Your task to perform on an android device: turn on priority inbox in the gmail app Image 0: 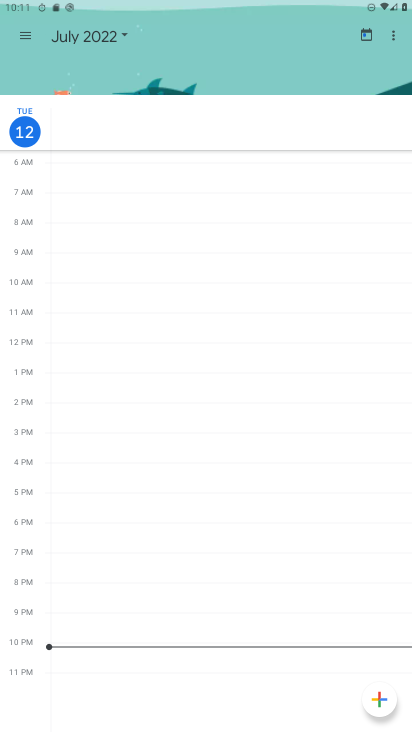
Step 0: press home button
Your task to perform on an android device: turn on priority inbox in the gmail app Image 1: 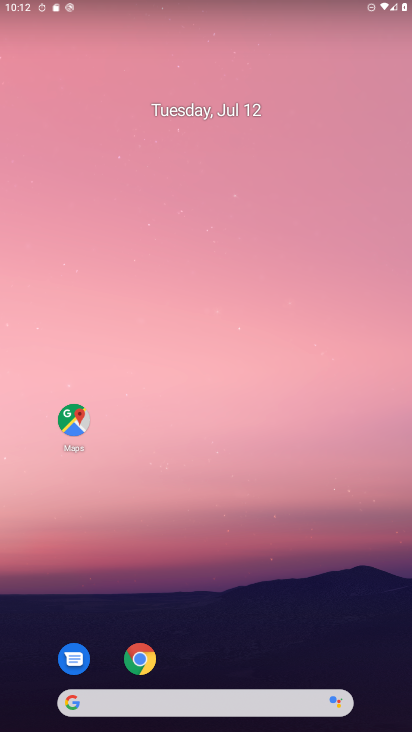
Step 1: click (248, 730)
Your task to perform on an android device: turn on priority inbox in the gmail app Image 2: 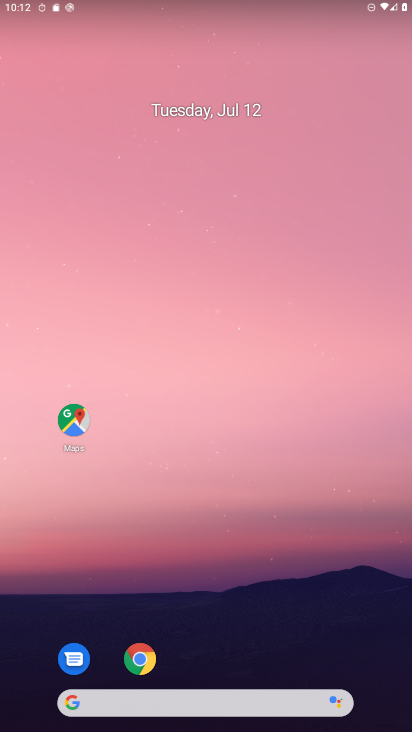
Step 2: drag from (250, 333) to (250, 153)
Your task to perform on an android device: turn on priority inbox in the gmail app Image 3: 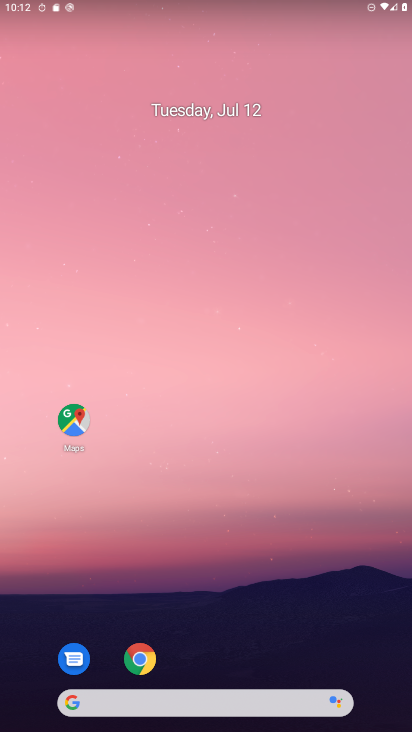
Step 3: drag from (270, 729) to (281, 157)
Your task to perform on an android device: turn on priority inbox in the gmail app Image 4: 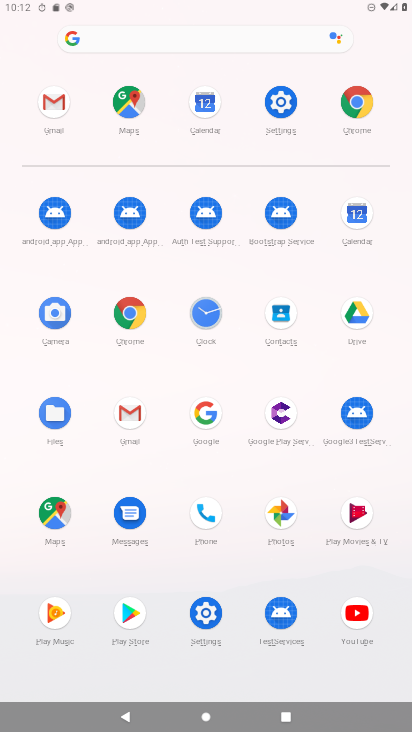
Step 4: click (134, 414)
Your task to perform on an android device: turn on priority inbox in the gmail app Image 5: 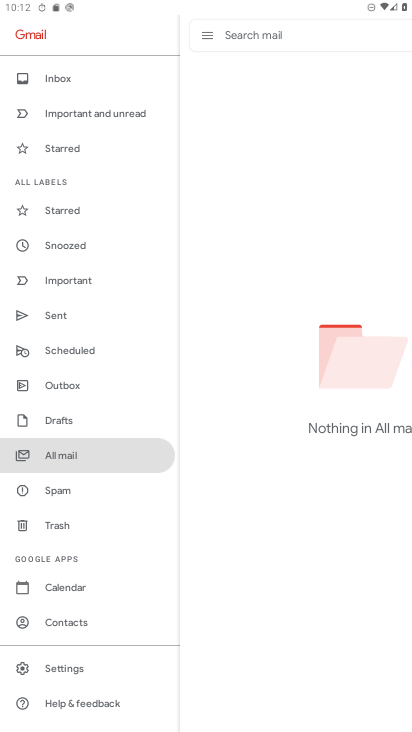
Step 5: click (73, 664)
Your task to perform on an android device: turn on priority inbox in the gmail app Image 6: 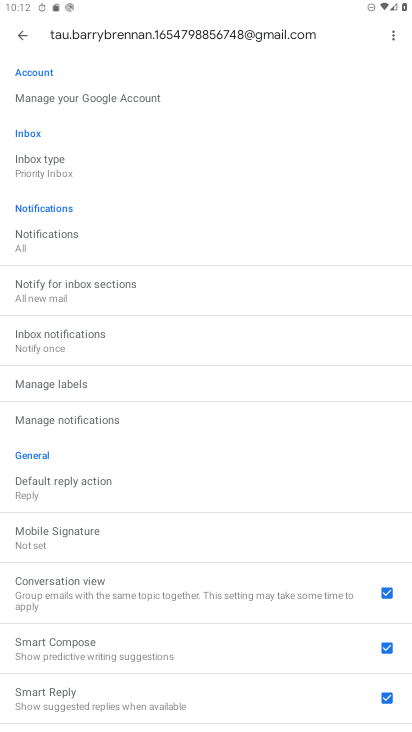
Step 6: task complete